Your task to perform on an android device: change timer sound Image 0: 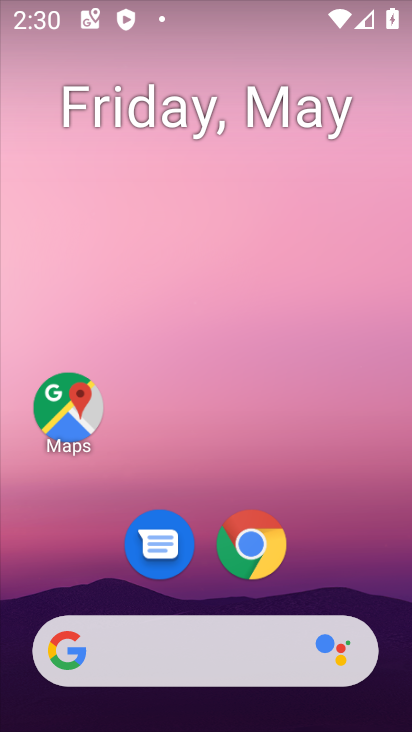
Step 0: drag from (206, 586) to (205, 176)
Your task to perform on an android device: change timer sound Image 1: 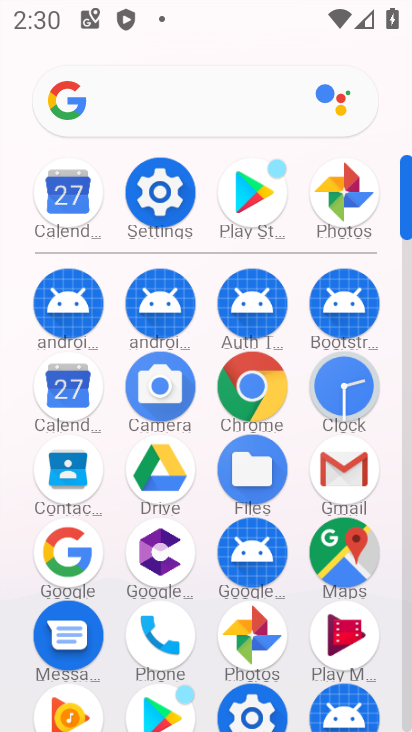
Step 1: click (336, 392)
Your task to perform on an android device: change timer sound Image 2: 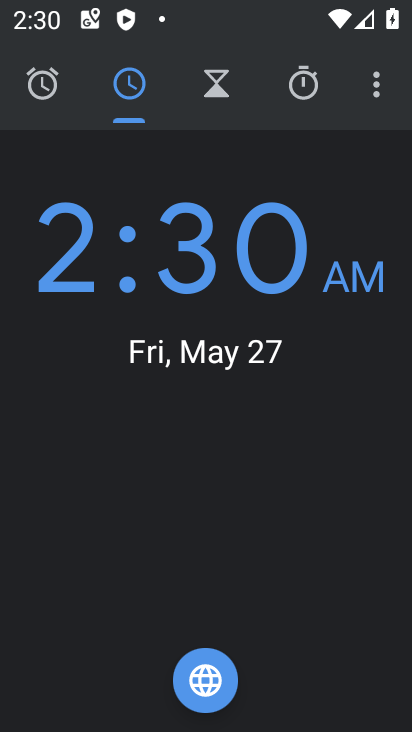
Step 2: click (374, 73)
Your task to perform on an android device: change timer sound Image 3: 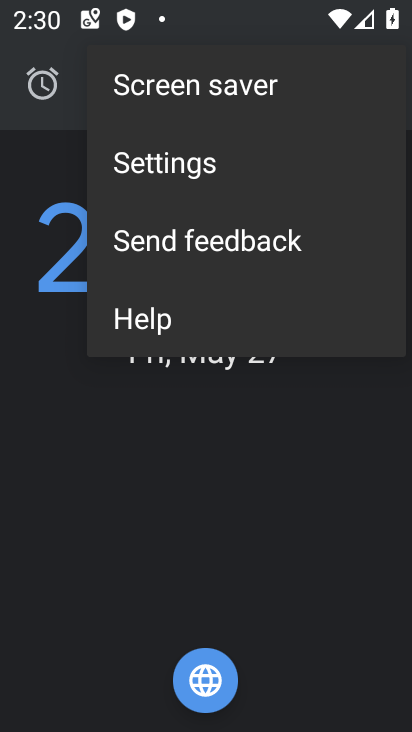
Step 3: click (199, 177)
Your task to perform on an android device: change timer sound Image 4: 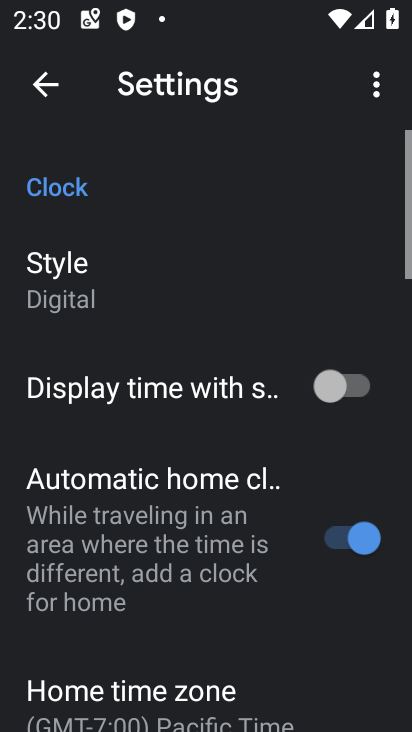
Step 4: drag from (226, 588) to (252, 219)
Your task to perform on an android device: change timer sound Image 5: 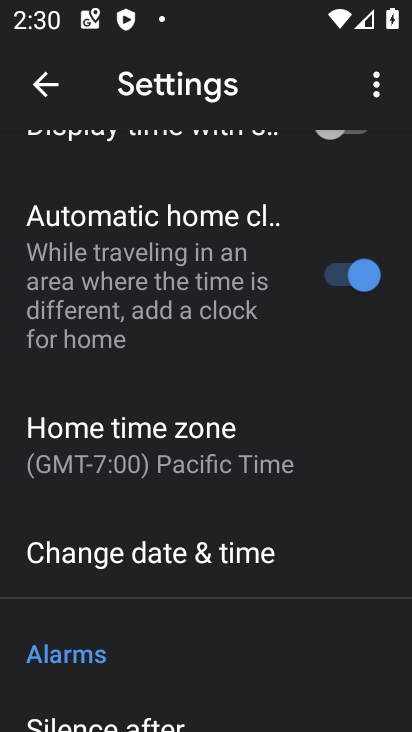
Step 5: drag from (248, 562) to (242, 306)
Your task to perform on an android device: change timer sound Image 6: 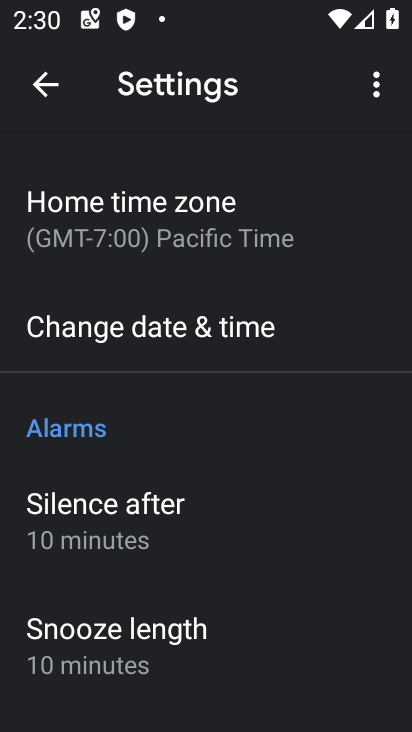
Step 6: drag from (251, 613) to (240, 320)
Your task to perform on an android device: change timer sound Image 7: 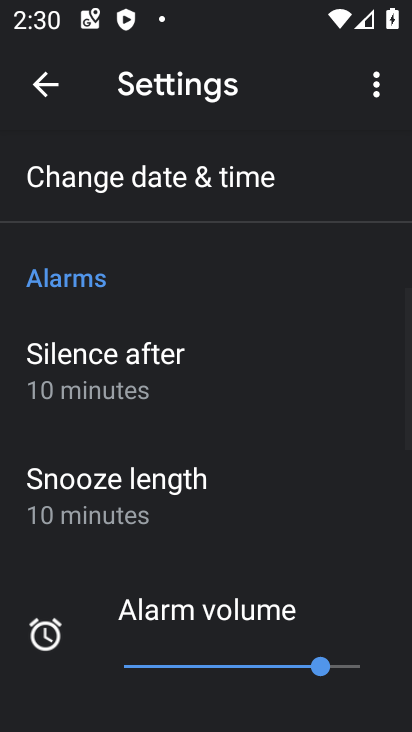
Step 7: drag from (220, 542) to (261, 264)
Your task to perform on an android device: change timer sound Image 8: 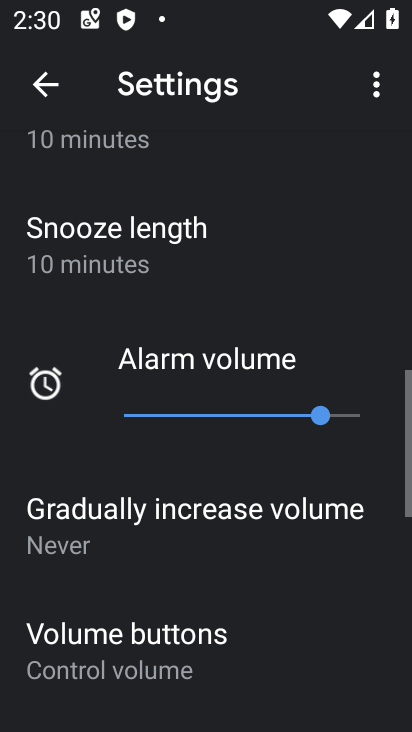
Step 8: drag from (224, 589) to (280, 336)
Your task to perform on an android device: change timer sound Image 9: 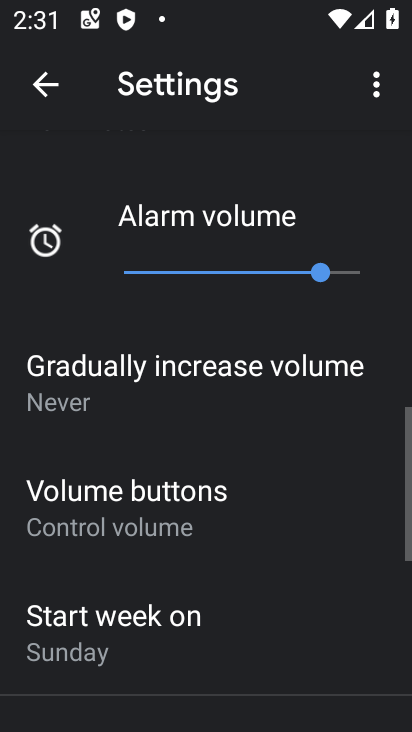
Step 9: drag from (243, 602) to (290, 375)
Your task to perform on an android device: change timer sound Image 10: 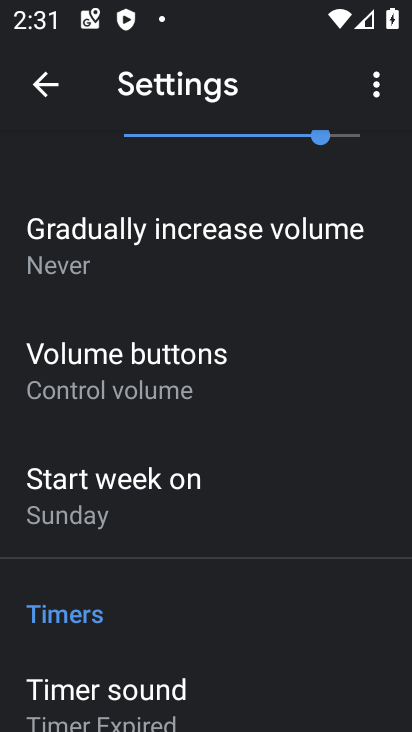
Step 10: click (218, 679)
Your task to perform on an android device: change timer sound Image 11: 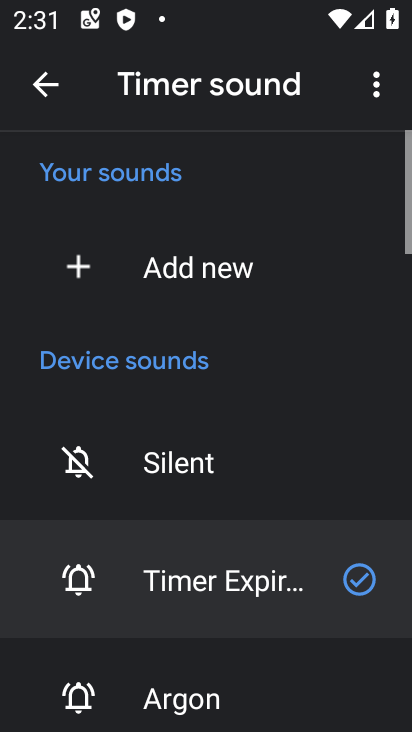
Step 11: drag from (215, 650) to (234, 613)
Your task to perform on an android device: change timer sound Image 12: 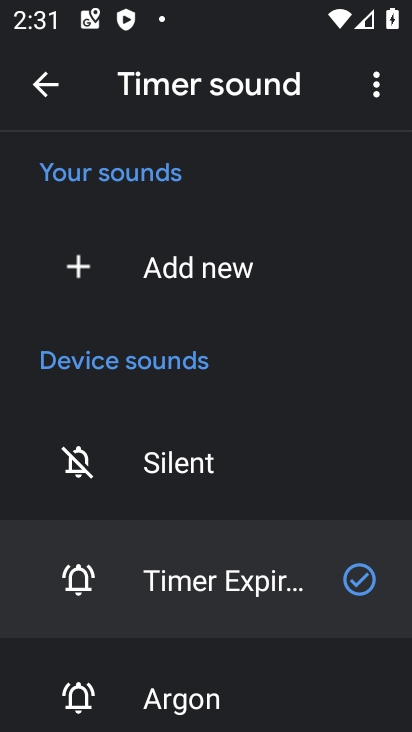
Step 12: drag from (268, 664) to (326, 349)
Your task to perform on an android device: change timer sound Image 13: 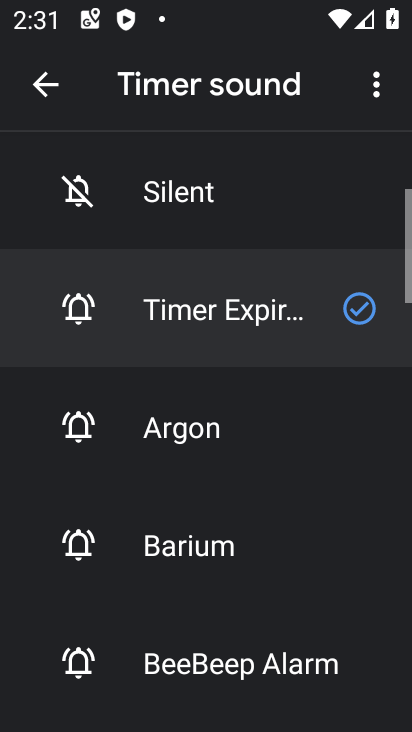
Step 13: click (265, 545)
Your task to perform on an android device: change timer sound Image 14: 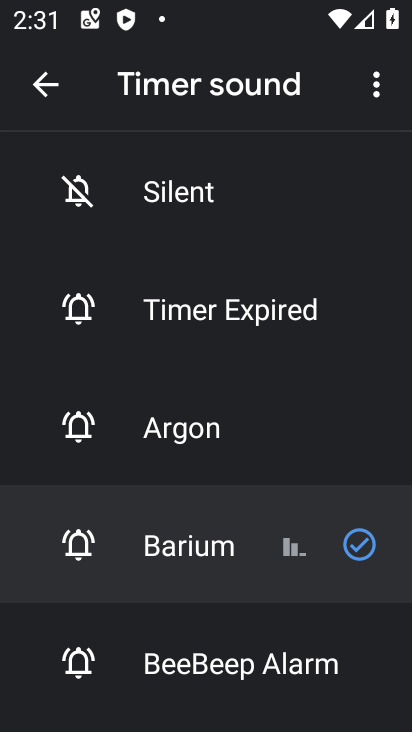
Step 14: task complete